Your task to perform on an android device: turn on sleep mode Image 0: 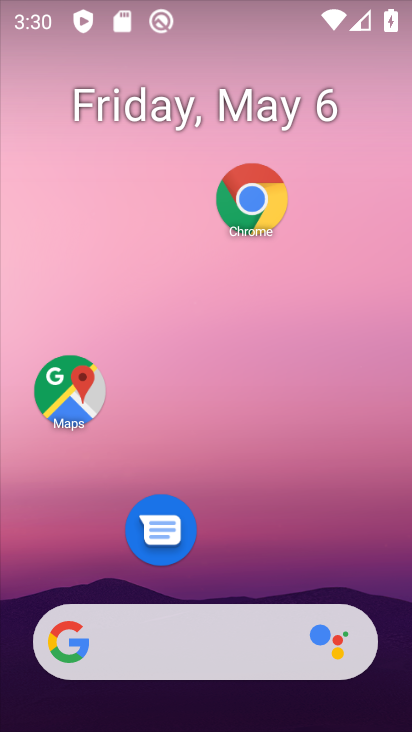
Step 0: drag from (352, 590) to (234, 274)
Your task to perform on an android device: turn on sleep mode Image 1: 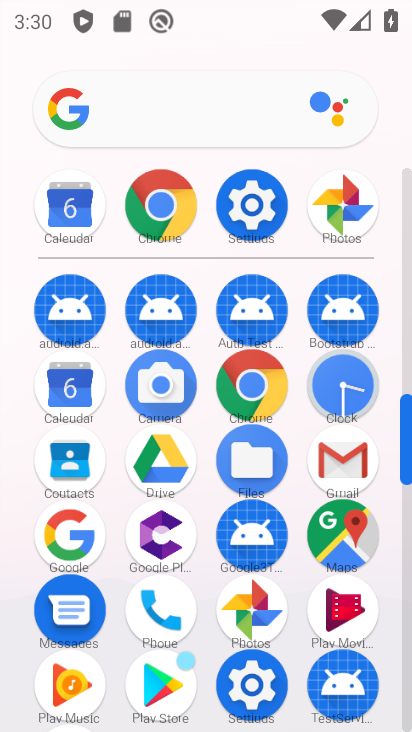
Step 1: click (266, 227)
Your task to perform on an android device: turn on sleep mode Image 2: 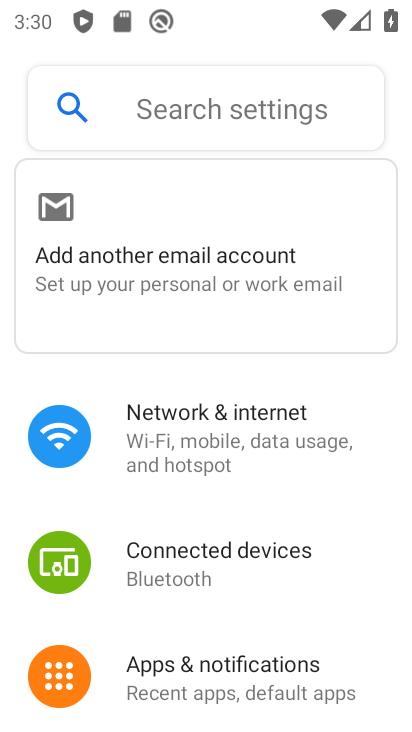
Step 2: drag from (256, 502) to (263, 194)
Your task to perform on an android device: turn on sleep mode Image 3: 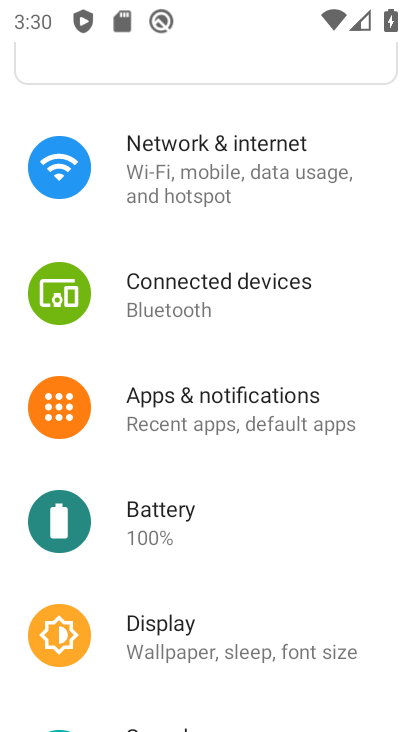
Step 3: drag from (240, 558) to (241, 346)
Your task to perform on an android device: turn on sleep mode Image 4: 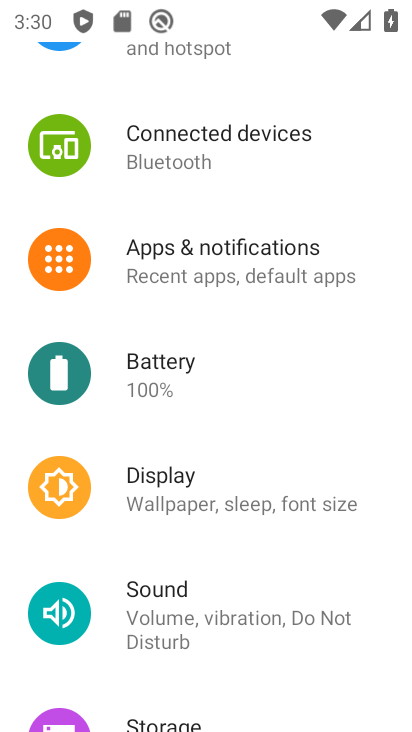
Step 4: click (228, 461)
Your task to perform on an android device: turn on sleep mode Image 5: 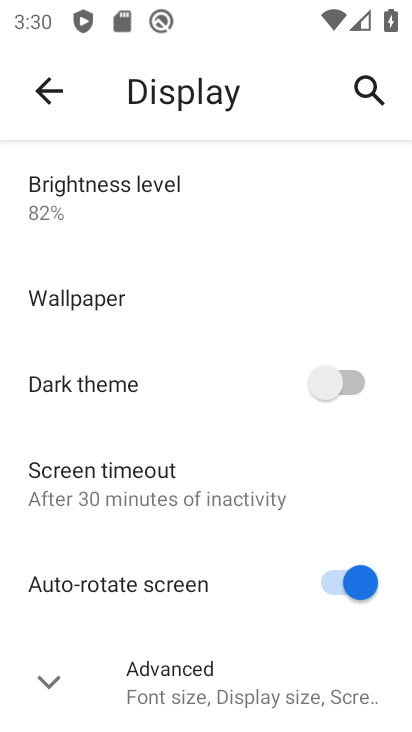
Step 5: click (167, 674)
Your task to perform on an android device: turn on sleep mode Image 6: 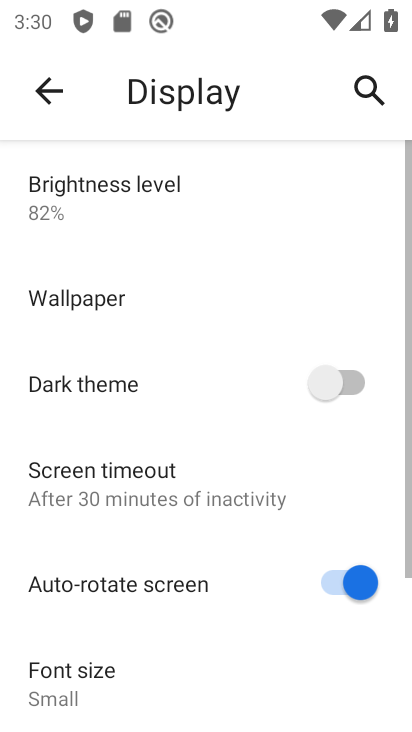
Step 6: task complete